Your task to perform on an android device: find snoozed emails in the gmail app Image 0: 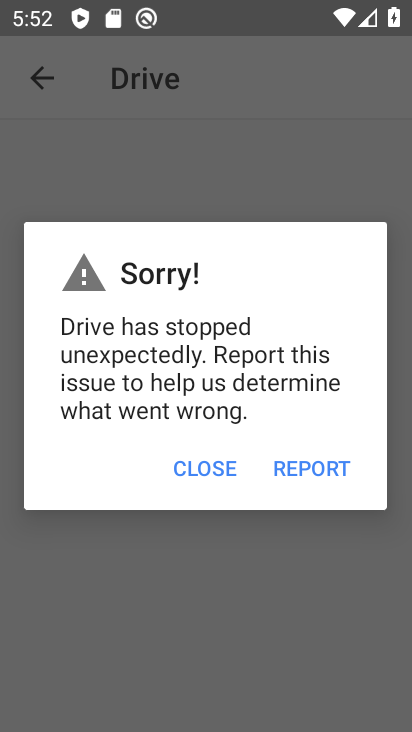
Step 0: press home button
Your task to perform on an android device: find snoozed emails in the gmail app Image 1: 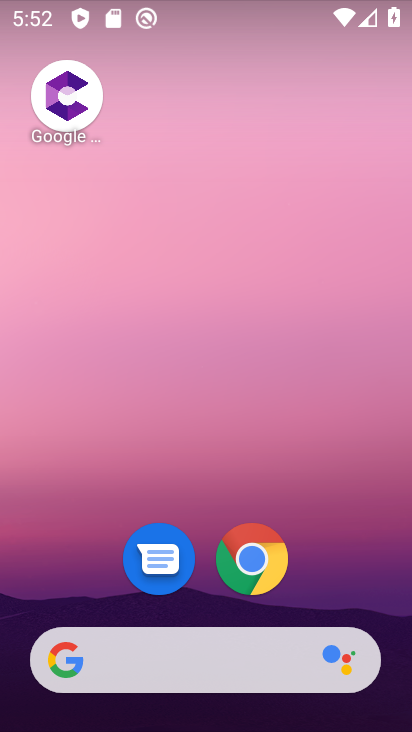
Step 1: drag from (349, 534) to (290, 103)
Your task to perform on an android device: find snoozed emails in the gmail app Image 2: 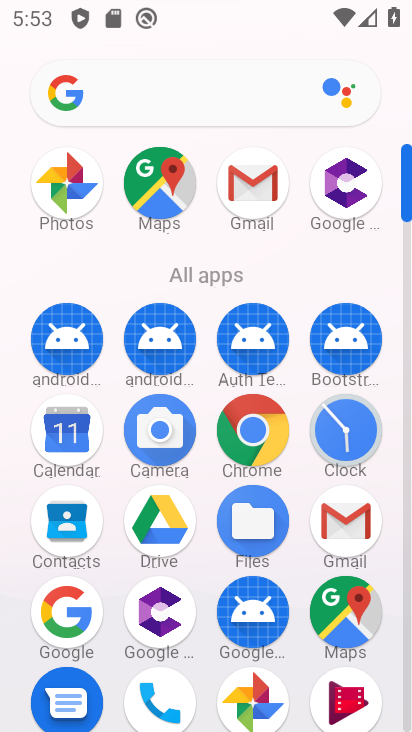
Step 2: click (248, 165)
Your task to perform on an android device: find snoozed emails in the gmail app Image 3: 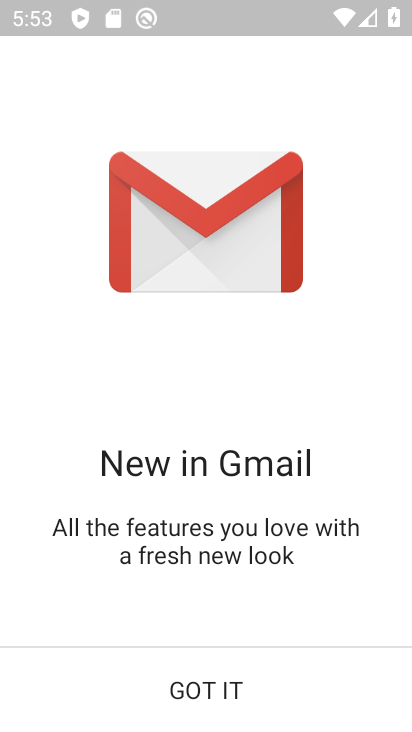
Step 3: click (169, 681)
Your task to perform on an android device: find snoozed emails in the gmail app Image 4: 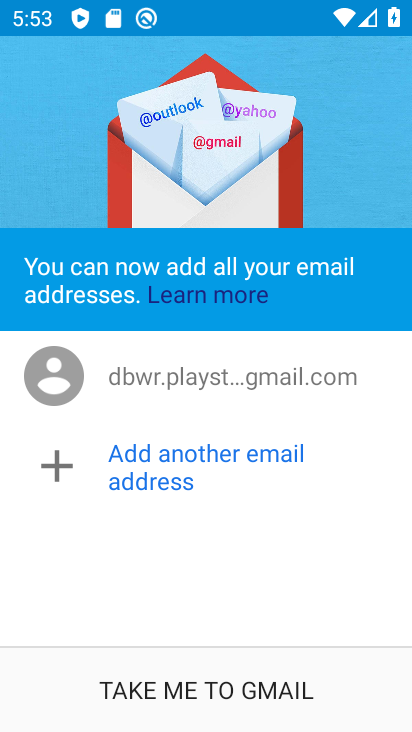
Step 4: click (169, 681)
Your task to perform on an android device: find snoozed emails in the gmail app Image 5: 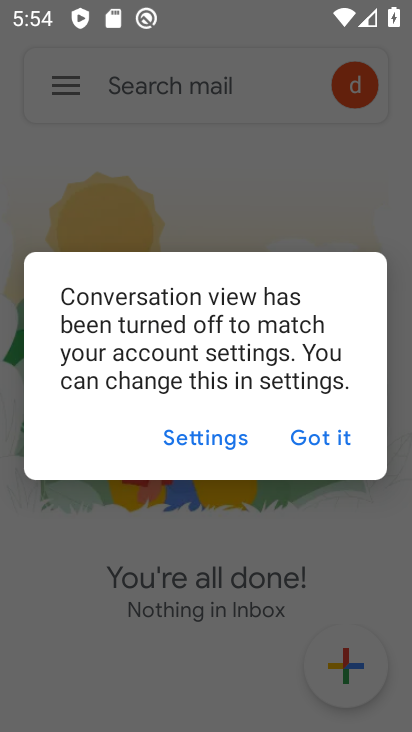
Step 5: click (304, 444)
Your task to perform on an android device: find snoozed emails in the gmail app Image 6: 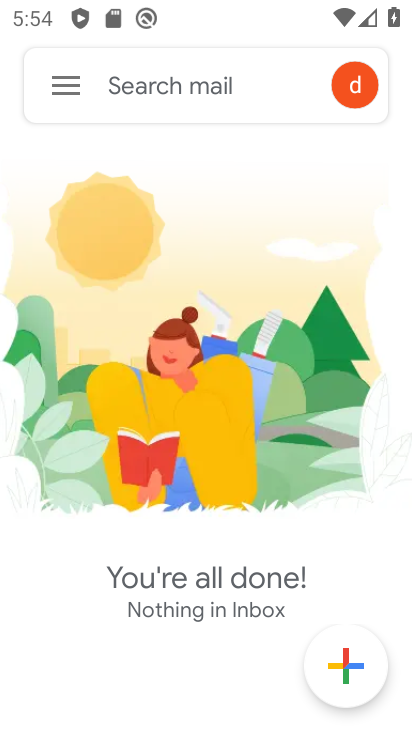
Step 6: click (53, 80)
Your task to perform on an android device: find snoozed emails in the gmail app Image 7: 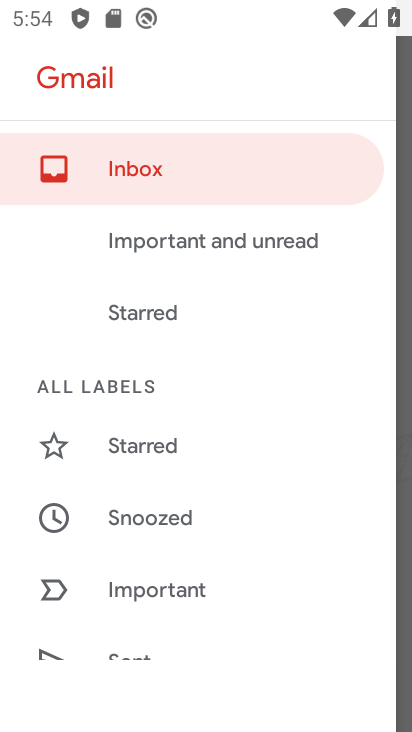
Step 7: click (158, 511)
Your task to perform on an android device: find snoozed emails in the gmail app Image 8: 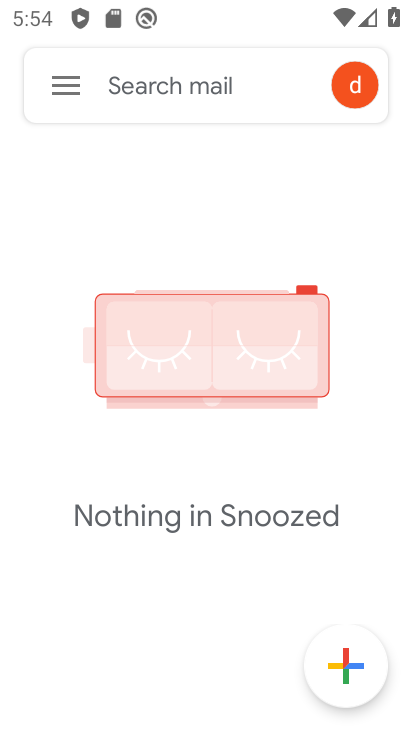
Step 8: task complete